Your task to perform on an android device: open a new tab in the chrome app Image 0: 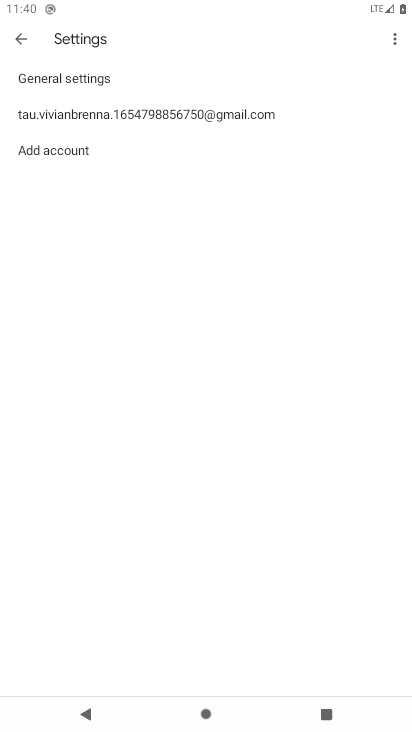
Step 0: press home button
Your task to perform on an android device: open a new tab in the chrome app Image 1: 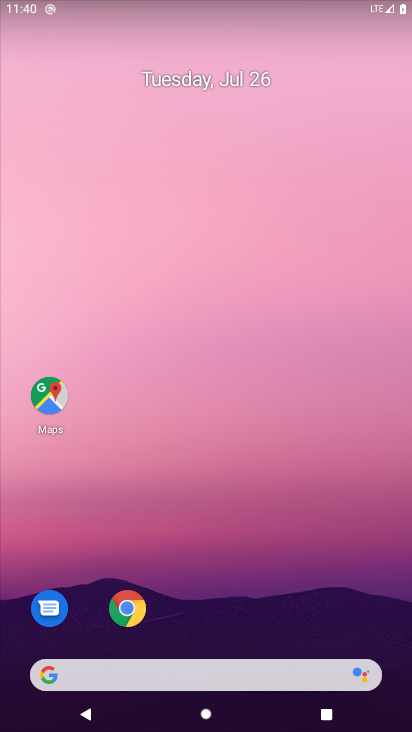
Step 1: click (119, 601)
Your task to perform on an android device: open a new tab in the chrome app Image 2: 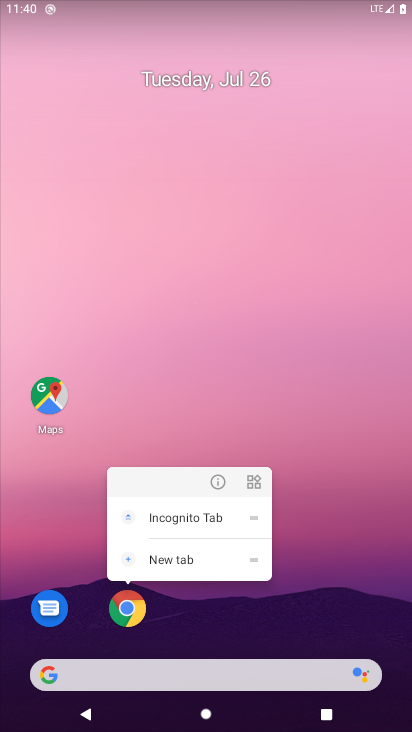
Step 2: click (122, 611)
Your task to perform on an android device: open a new tab in the chrome app Image 3: 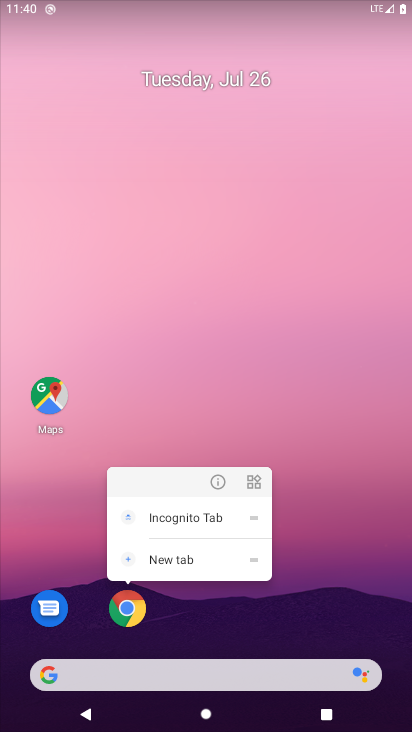
Step 3: click (122, 611)
Your task to perform on an android device: open a new tab in the chrome app Image 4: 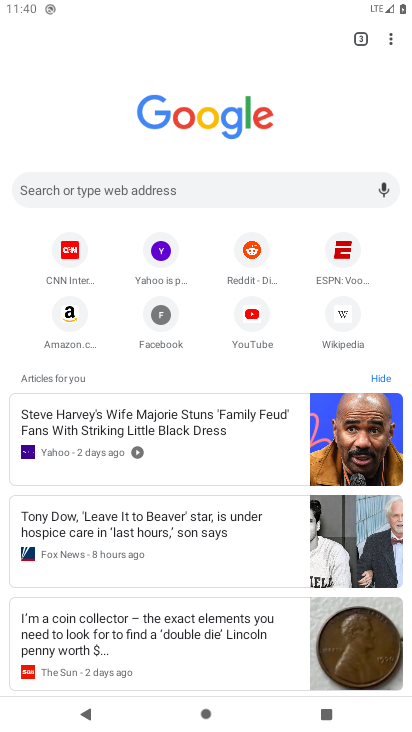
Step 4: click (353, 43)
Your task to perform on an android device: open a new tab in the chrome app Image 5: 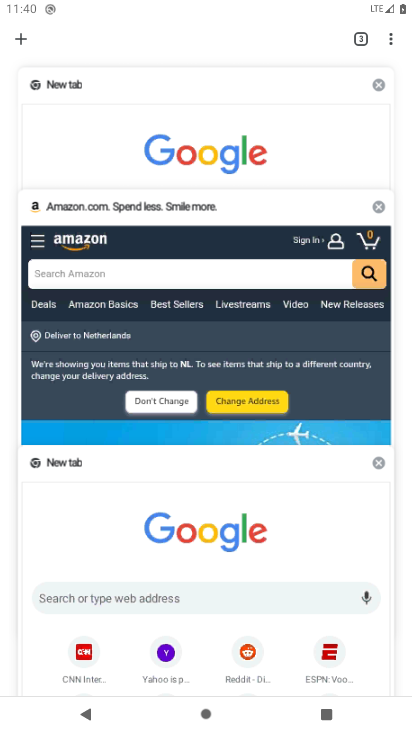
Step 5: click (16, 30)
Your task to perform on an android device: open a new tab in the chrome app Image 6: 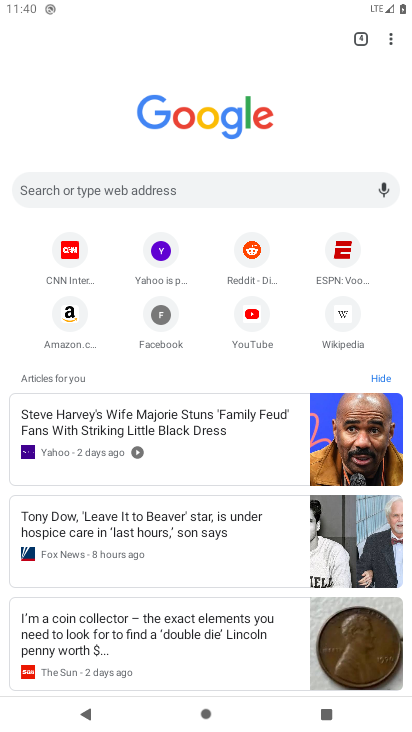
Step 6: task complete